Your task to perform on an android device: choose inbox layout in the gmail app Image 0: 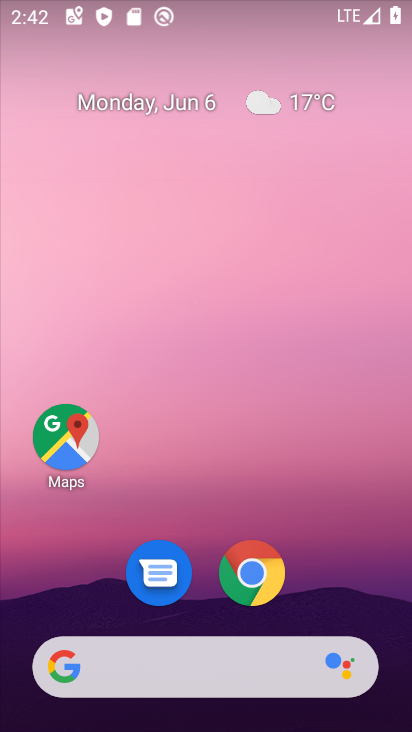
Step 0: drag from (358, 604) to (365, 233)
Your task to perform on an android device: choose inbox layout in the gmail app Image 1: 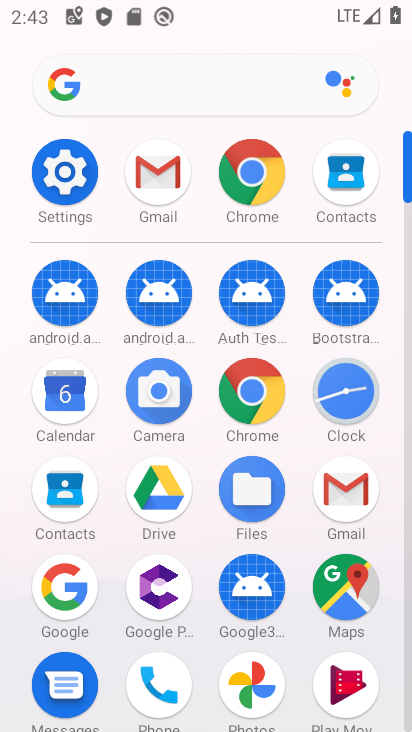
Step 1: click (354, 491)
Your task to perform on an android device: choose inbox layout in the gmail app Image 2: 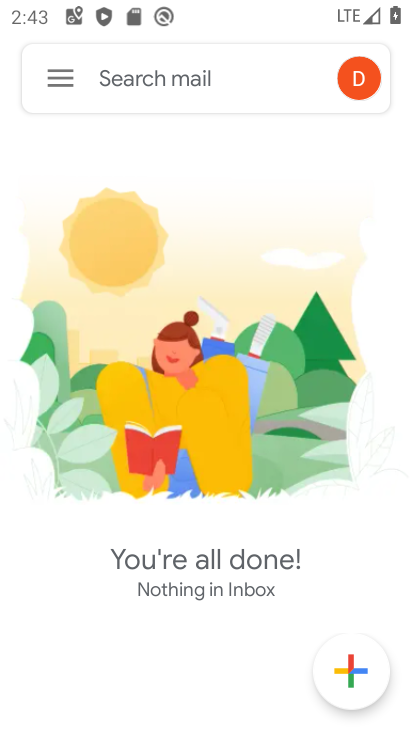
Step 2: click (67, 84)
Your task to perform on an android device: choose inbox layout in the gmail app Image 3: 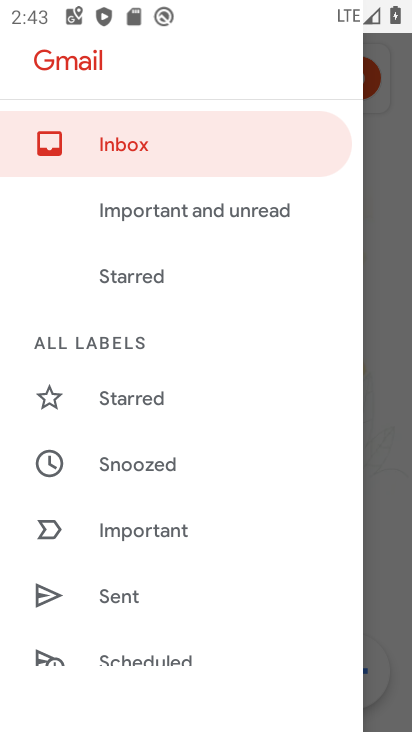
Step 3: drag from (252, 420) to (266, 330)
Your task to perform on an android device: choose inbox layout in the gmail app Image 4: 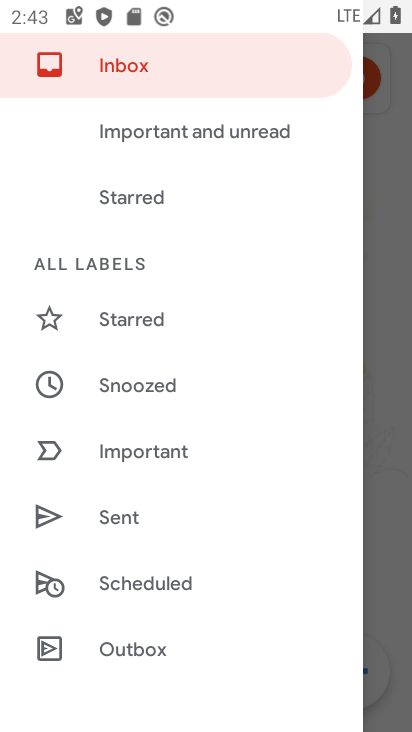
Step 4: drag from (272, 427) to (294, 222)
Your task to perform on an android device: choose inbox layout in the gmail app Image 5: 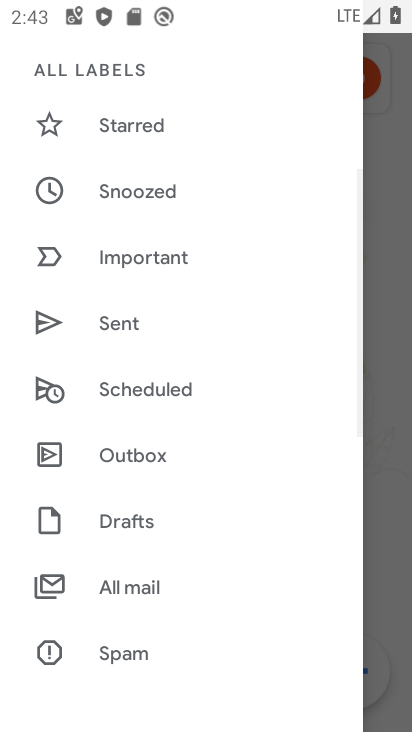
Step 5: drag from (277, 410) to (275, 279)
Your task to perform on an android device: choose inbox layout in the gmail app Image 6: 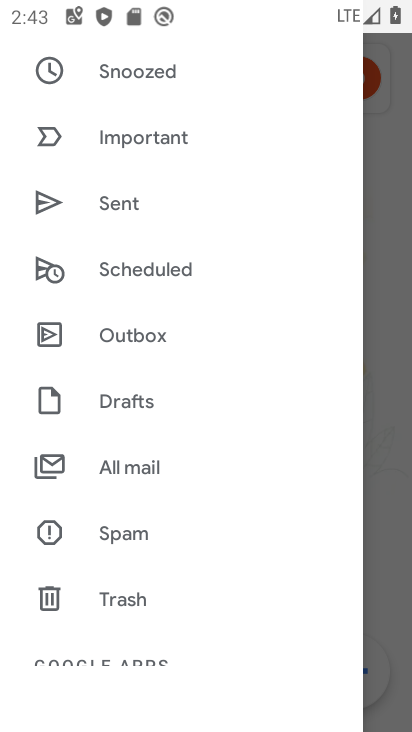
Step 6: drag from (272, 432) to (293, 325)
Your task to perform on an android device: choose inbox layout in the gmail app Image 7: 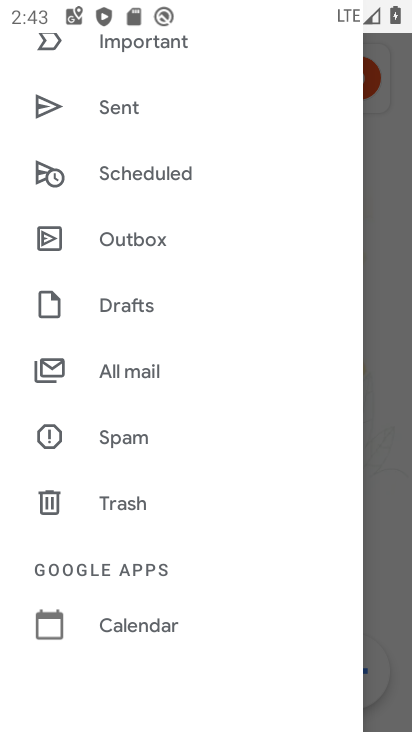
Step 7: drag from (287, 503) to (307, 371)
Your task to perform on an android device: choose inbox layout in the gmail app Image 8: 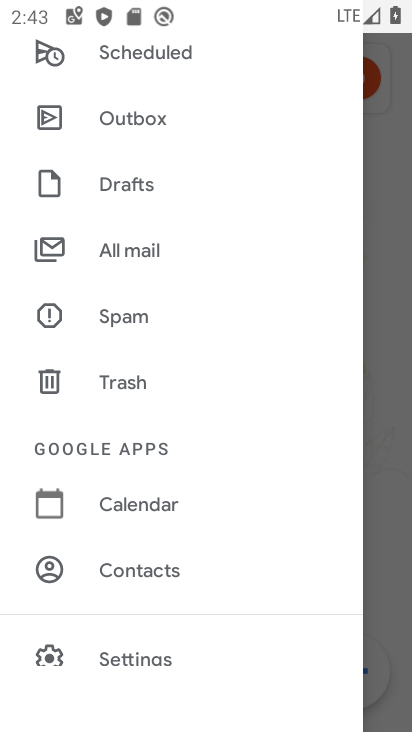
Step 8: drag from (274, 507) to (295, 387)
Your task to perform on an android device: choose inbox layout in the gmail app Image 9: 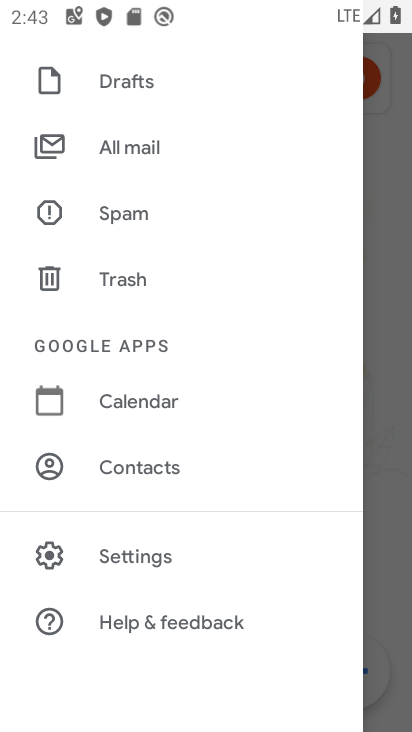
Step 9: click (176, 549)
Your task to perform on an android device: choose inbox layout in the gmail app Image 10: 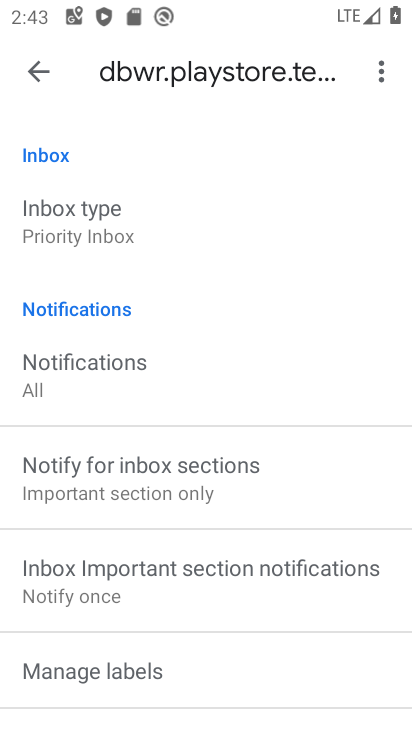
Step 10: drag from (286, 493) to (302, 416)
Your task to perform on an android device: choose inbox layout in the gmail app Image 11: 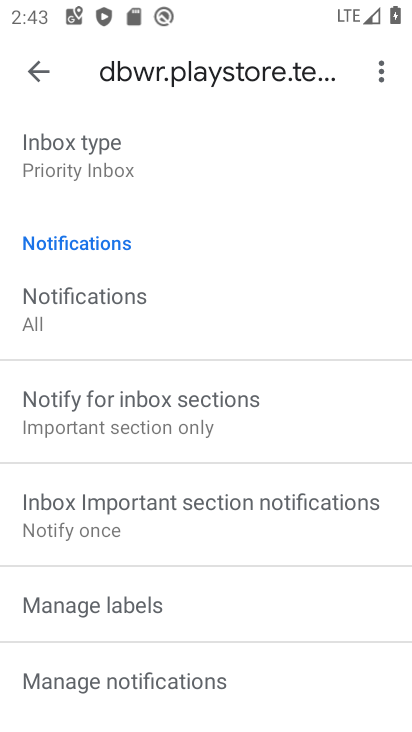
Step 11: click (108, 182)
Your task to perform on an android device: choose inbox layout in the gmail app Image 12: 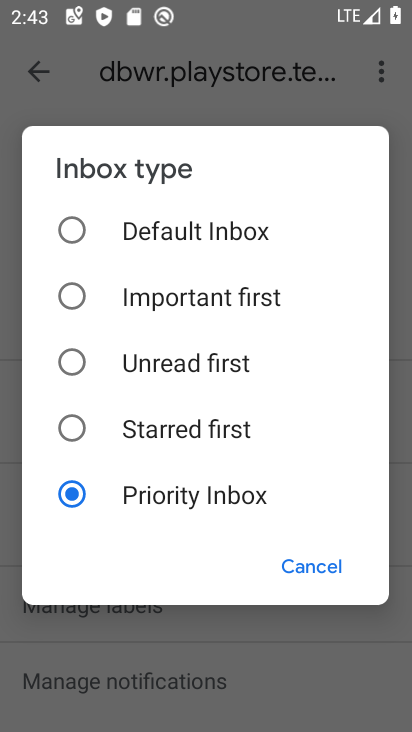
Step 12: click (169, 362)
Your task to perform on an android device: choose inbox layout in the gmail app Image 13: 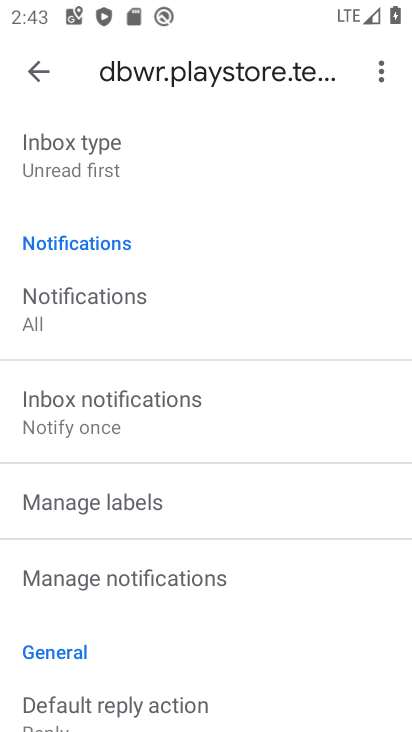
Step 13: task complete